Your task to perform on an android device: toggle notification dots Image 0: 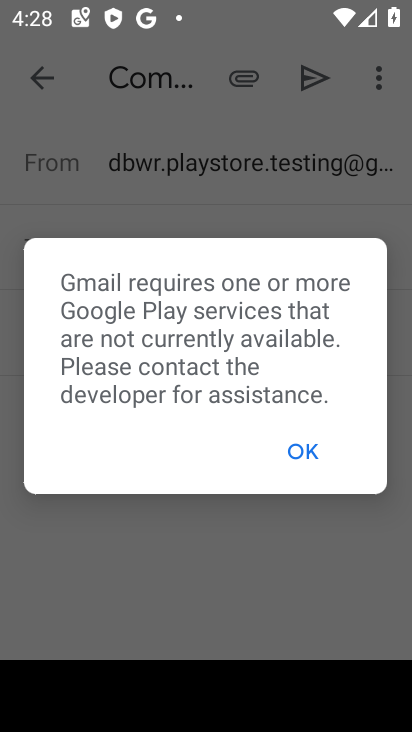
Step 0: press back button
Your task to perform on an android device: toggle notification dots Image 1: 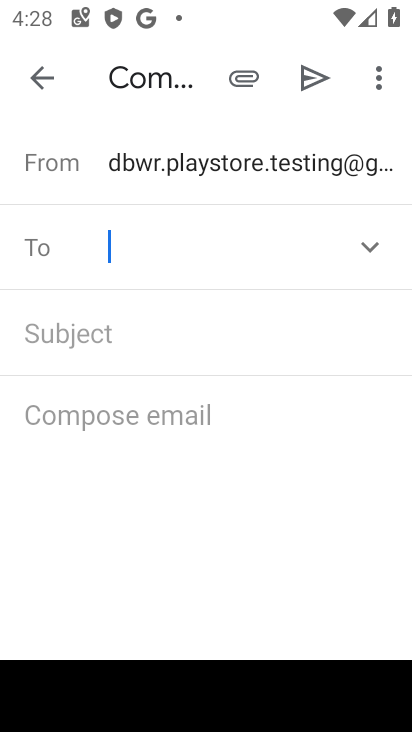
Step 1: press home button
Your task to perform on an android device: toggle notification dots Image 2: 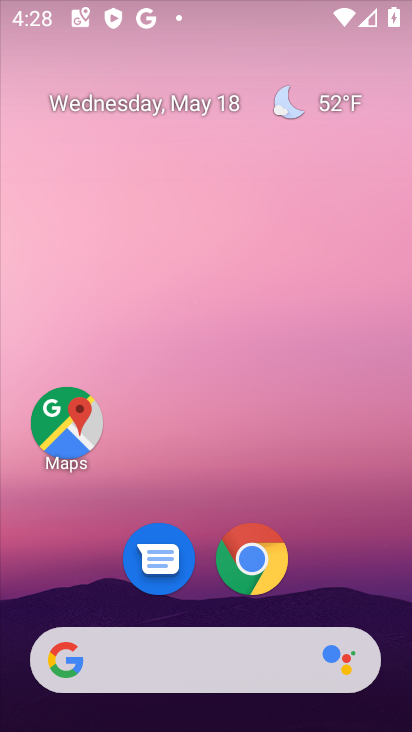
Step 2: drag from (191, 549) to (217, 91)
Your task to perform on an android device: toggle notification dots Image 3: 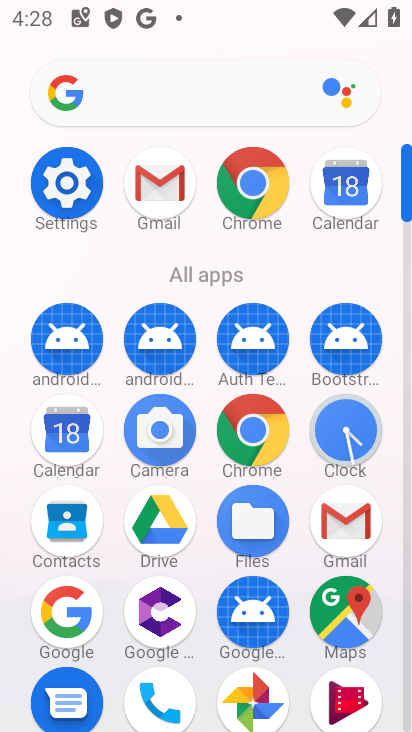
Step 3: click (71, 181)
Your task to perform on an android device: toggle notification dots Image 4: 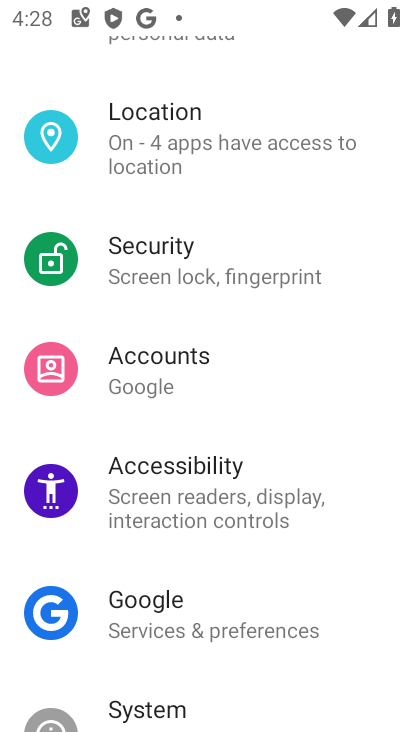
Step 4: drag from (271, 230) to (227, 695)
Your task to perform on an android device: toggle notification dots Image 5: 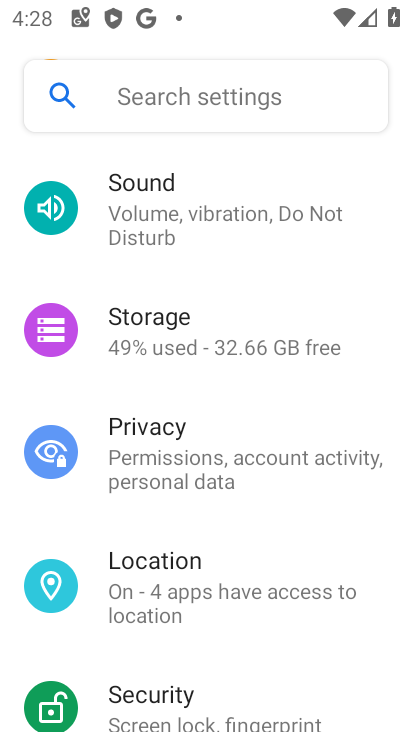
Step 5: drag from (226, 447) to (210, 620)
Your task to perform on an android device: toggle notification dots Image 6: 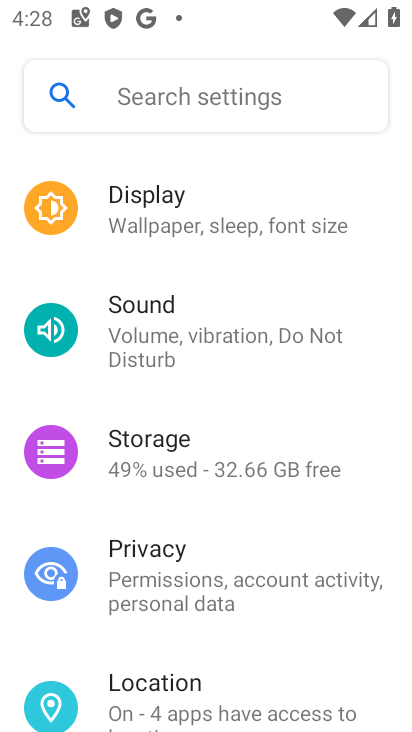
Step 6: drag from (209, 351) to (207, 711)
Your task to perform on an android device: toggle notification dots Image 7: 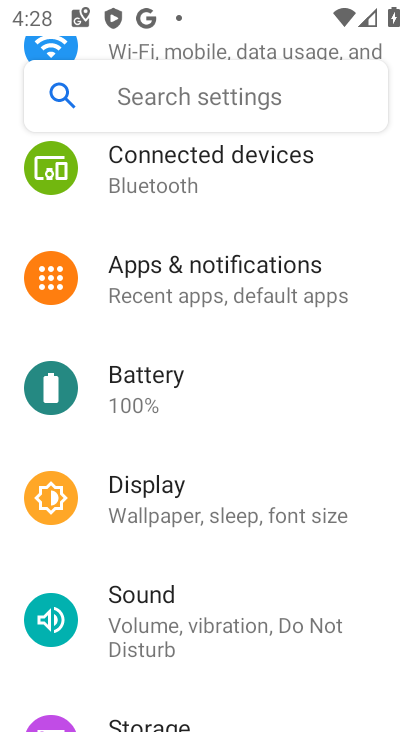
Step 7: click (176, 275)
Your task to perform on an android device: toggle notification dots Image 8: 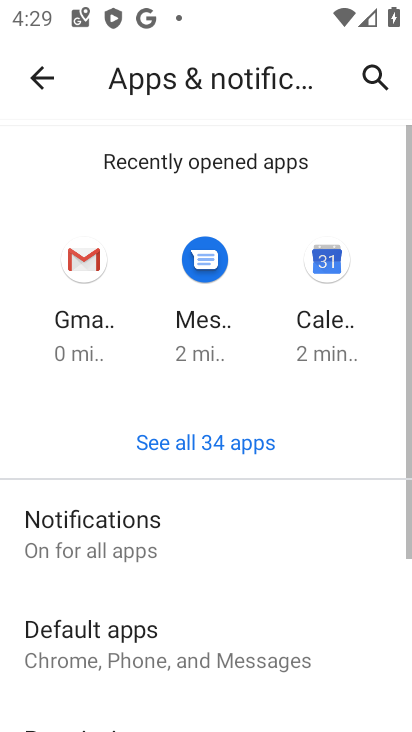
Step 8: drag from (169, 615) to (240, 256)
Your task to perform on an android device: toggle notification dots Image 9: 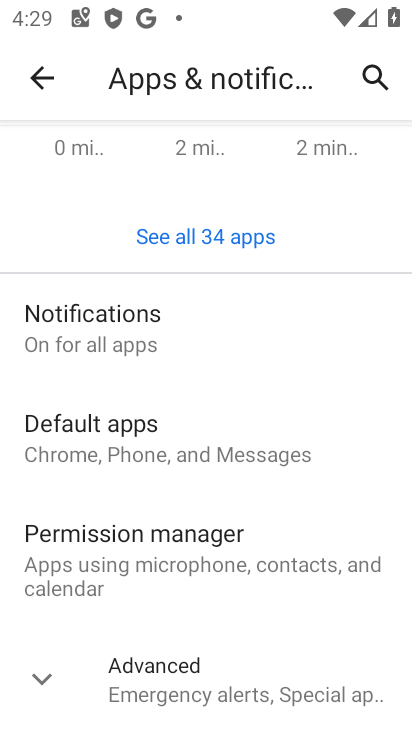
Step 9: click (145, 324)
Your task to perform on an android device: toggle notification dots Image 10: 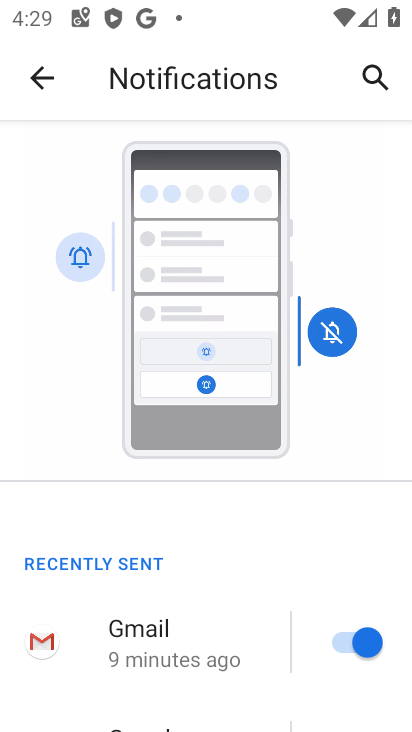
Step 10: drag from (188, 649) to (292, 95)
Your task to perform on an android device: toggle notification dots Image 11: 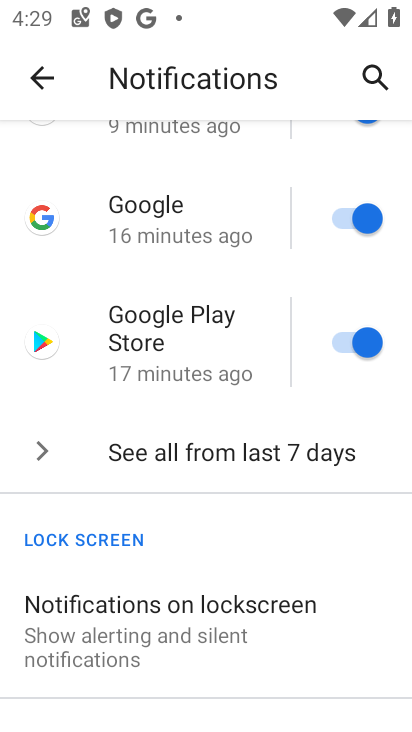
Step 11: drag from (227, 556) to (244, 75)
Your task to perform on an android device: toggle notification dots Image 12: 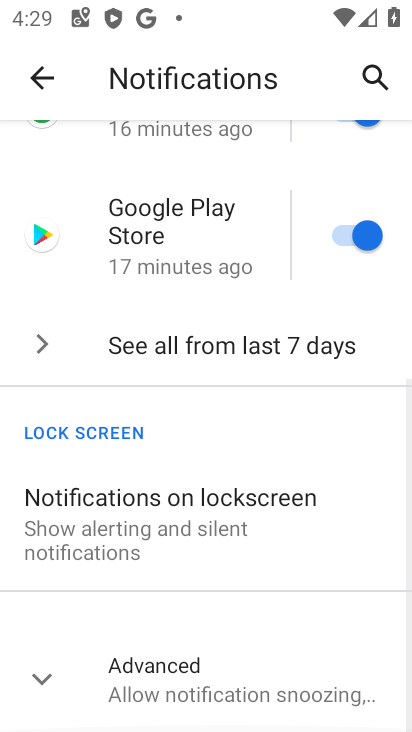
Step 12: click (262, 677)
Your task to perform on an android device: toggle notification dots Image 13: 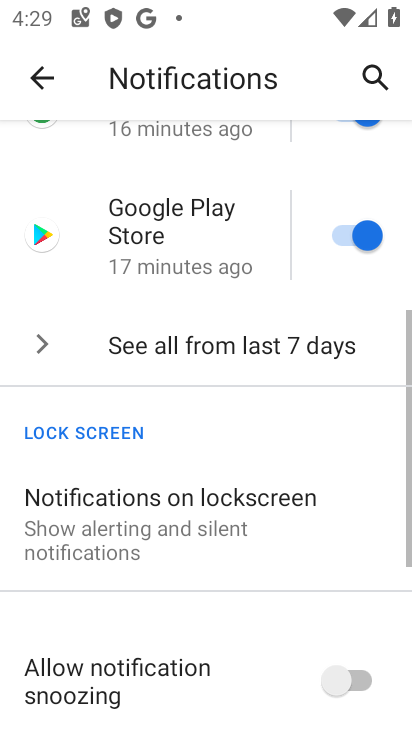
Step 13: drag from (261, 646) to (270, 213)
Your task to perform on an android device: toggle notification dots Image 14: 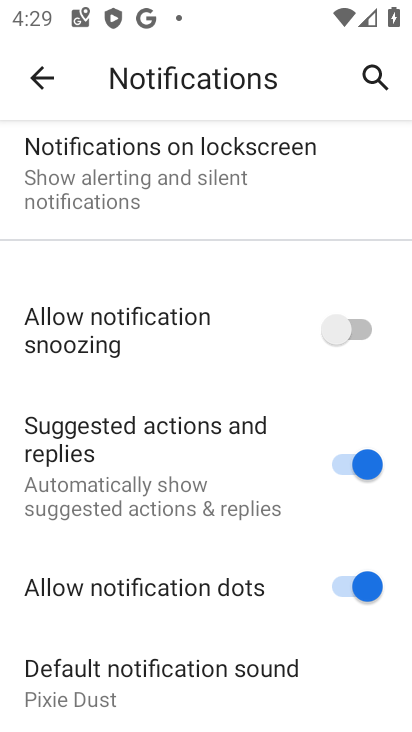
Step 14: click (356, 583)
Your task to perform on an android device: toggle notification dots Image 15: 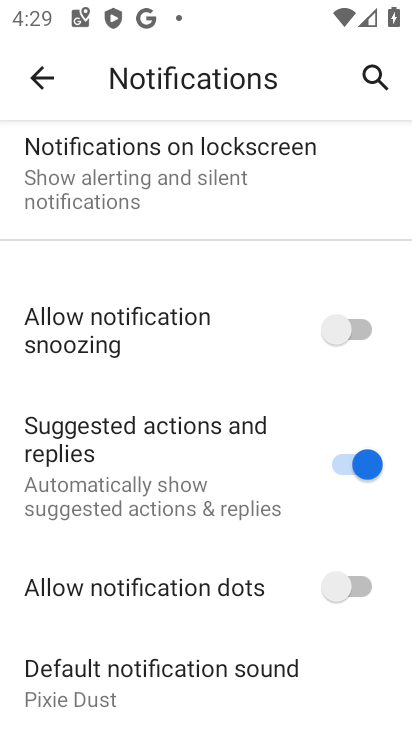
Step 15: task complete